Your task to perform on an android device: Open the stopwatch Image 0: 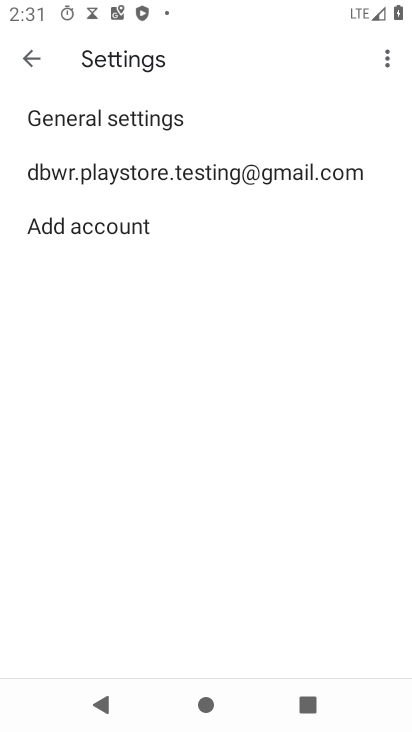
Step 0: press home button
Your task to perform on an android device: Open the stopwatch Image 1: 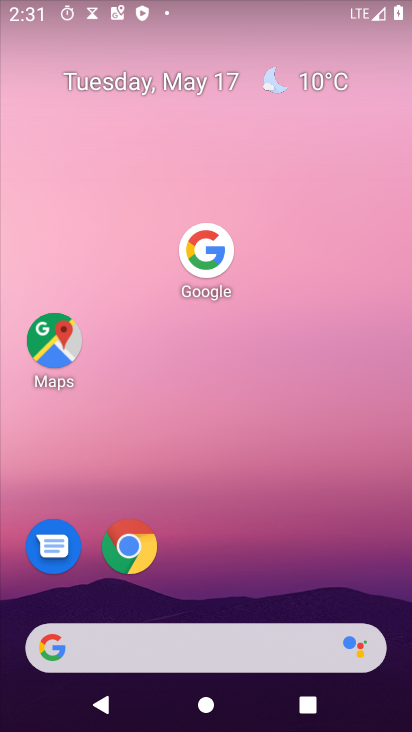
Step 1: drag from (140, 637) to (308, 160)
Your task to perform on an android device: Open the stopwatch Image 2: 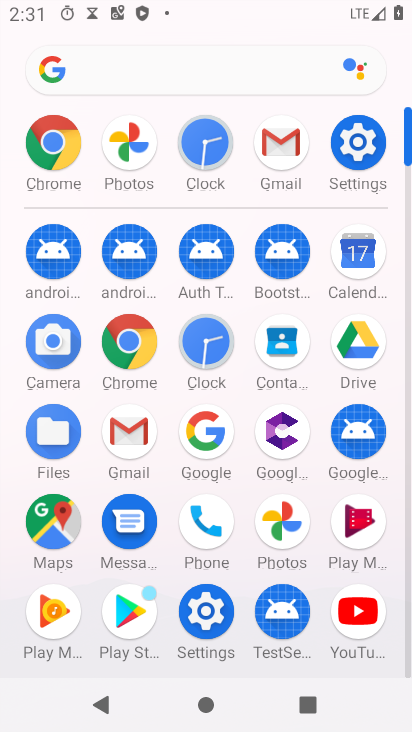
Step 2: click (200, 152)
Your task to perform on an android device: Open the stopwatch Image 3: 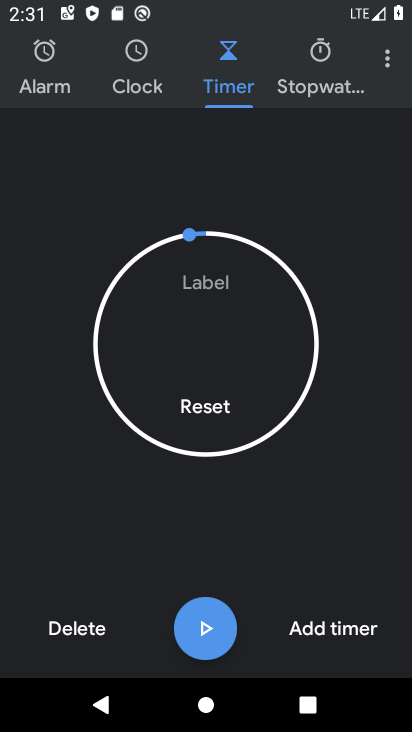
Step 3: click (328, 88)
Your task to perform on an android device: Open the stopwatch Image 4: 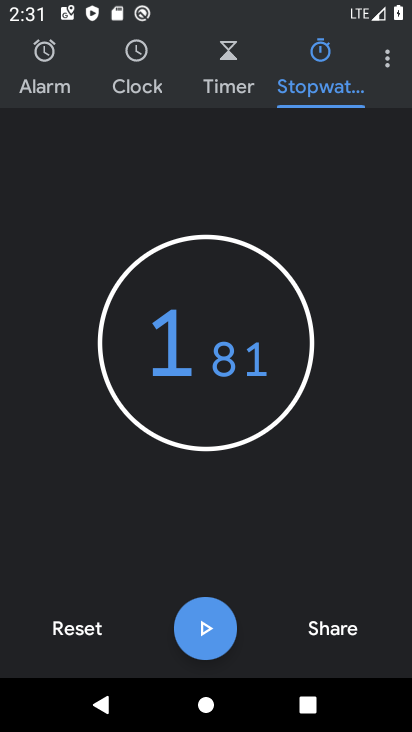
Step 4: click (74, 627)
Your task to perform on an android device: Open the stopwatch Image 5: 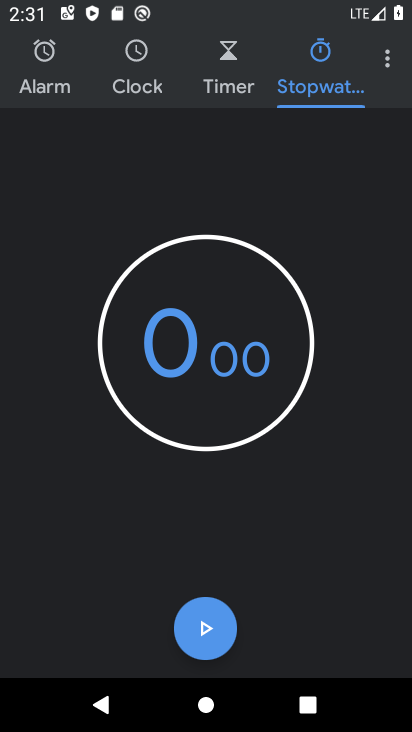
Step 5: click (218, 345)
Your task to perform on an android device: Open the stopwatch Image 6: 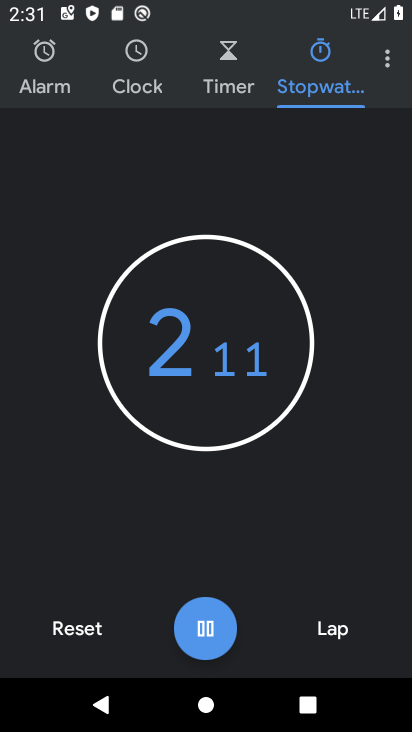
Step 6: click (218, 347)
Your task to perform on an android device: Open the stopwatch Image 7: 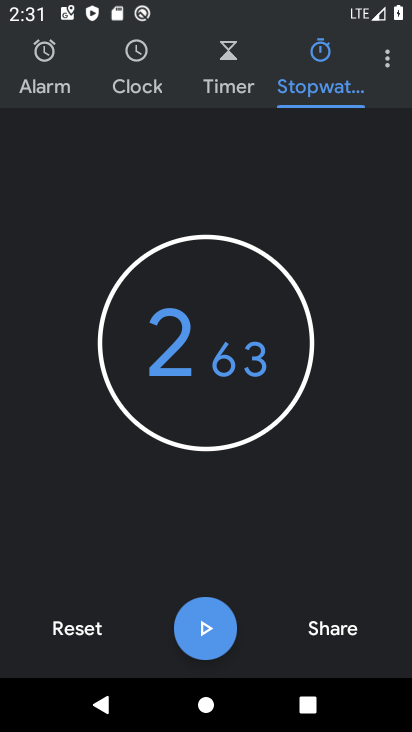
Step 7: task complete